Your task to perform on an android device: refresh tabs in the chrome app Image 0: 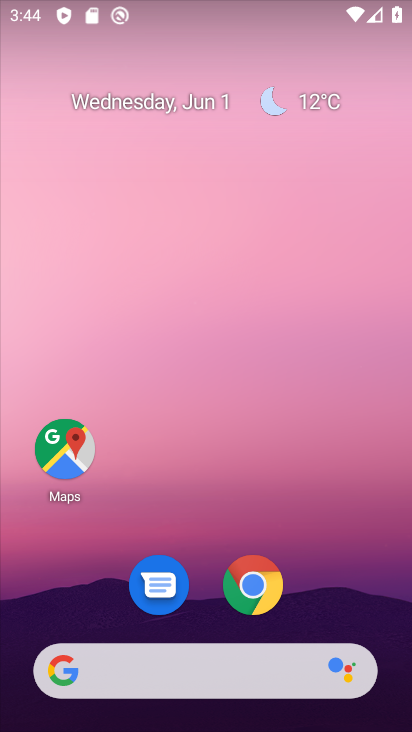
Step 0: click (248, 581)
Your task to perform on an android device: refresh tabs in the chrome app Image 1: 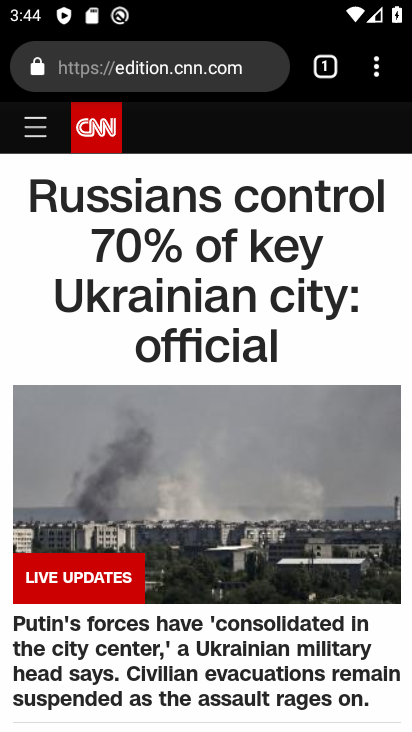
Step 1: click (377, 78)
Your task to perform on an android device: refresh tabs in the chrome app Image 2: 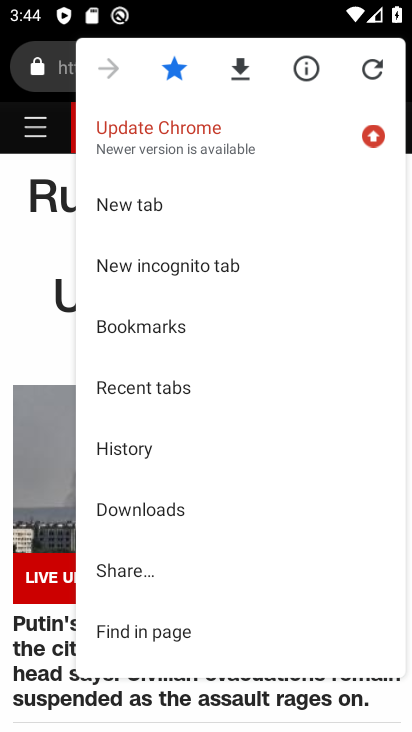
Step 2: click (366, 60)
Your task to perform on an android device: refresh tabs in the chrome app Image 3: 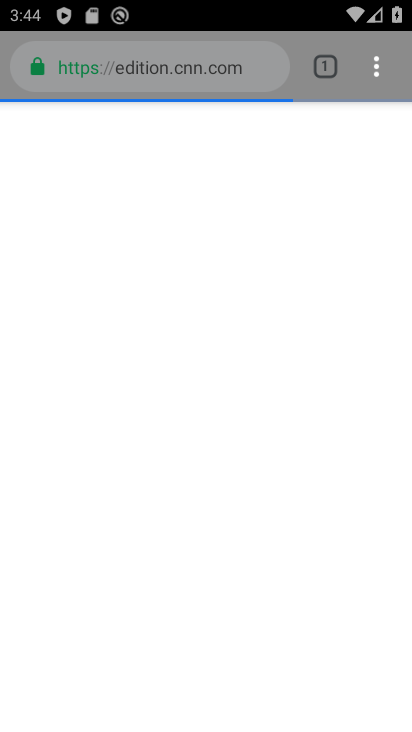
Step 3: task complete